Your task to perform on an android device: turn off priority inbox in the gmail app Image 0: 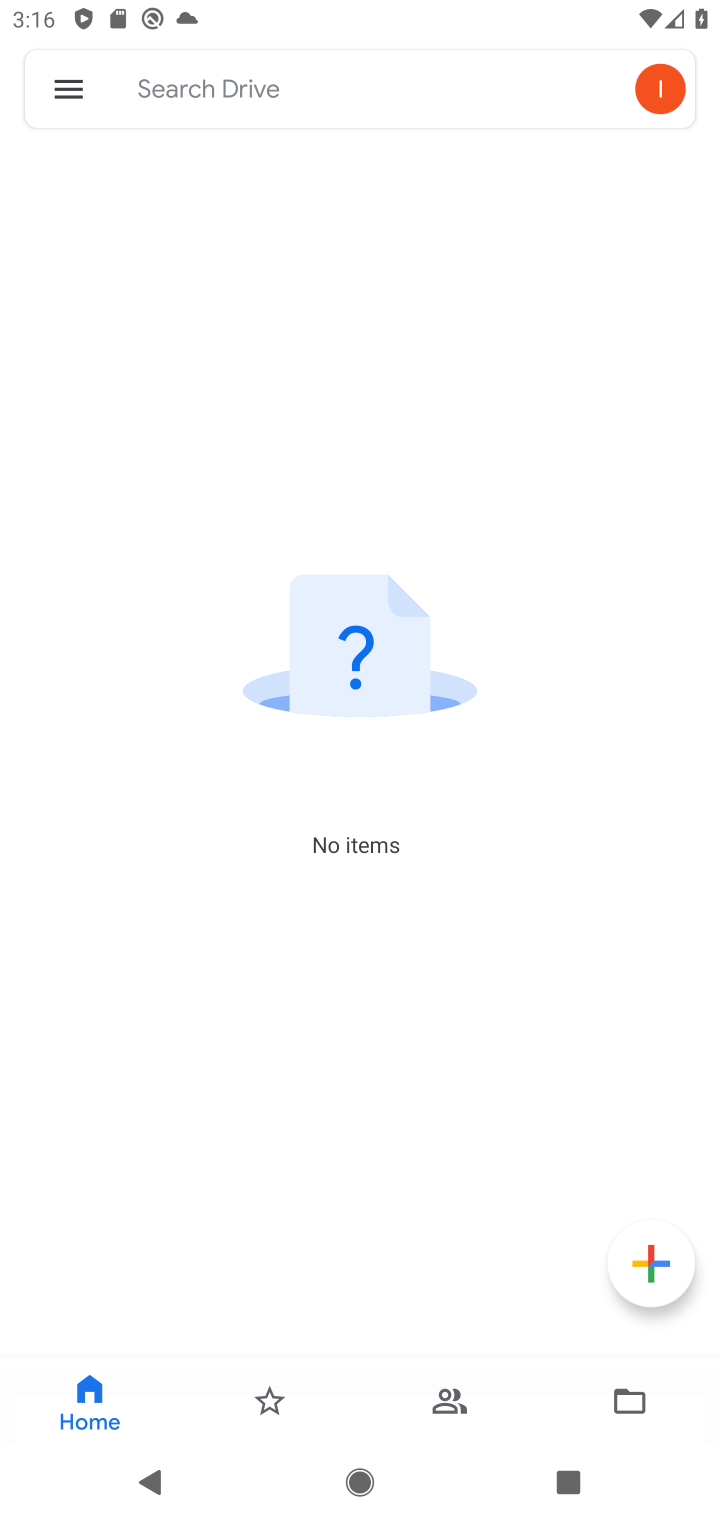
Step 0: press home button
Your task to perform on an android device: turn off priority inbox in the gmail app Image 1: 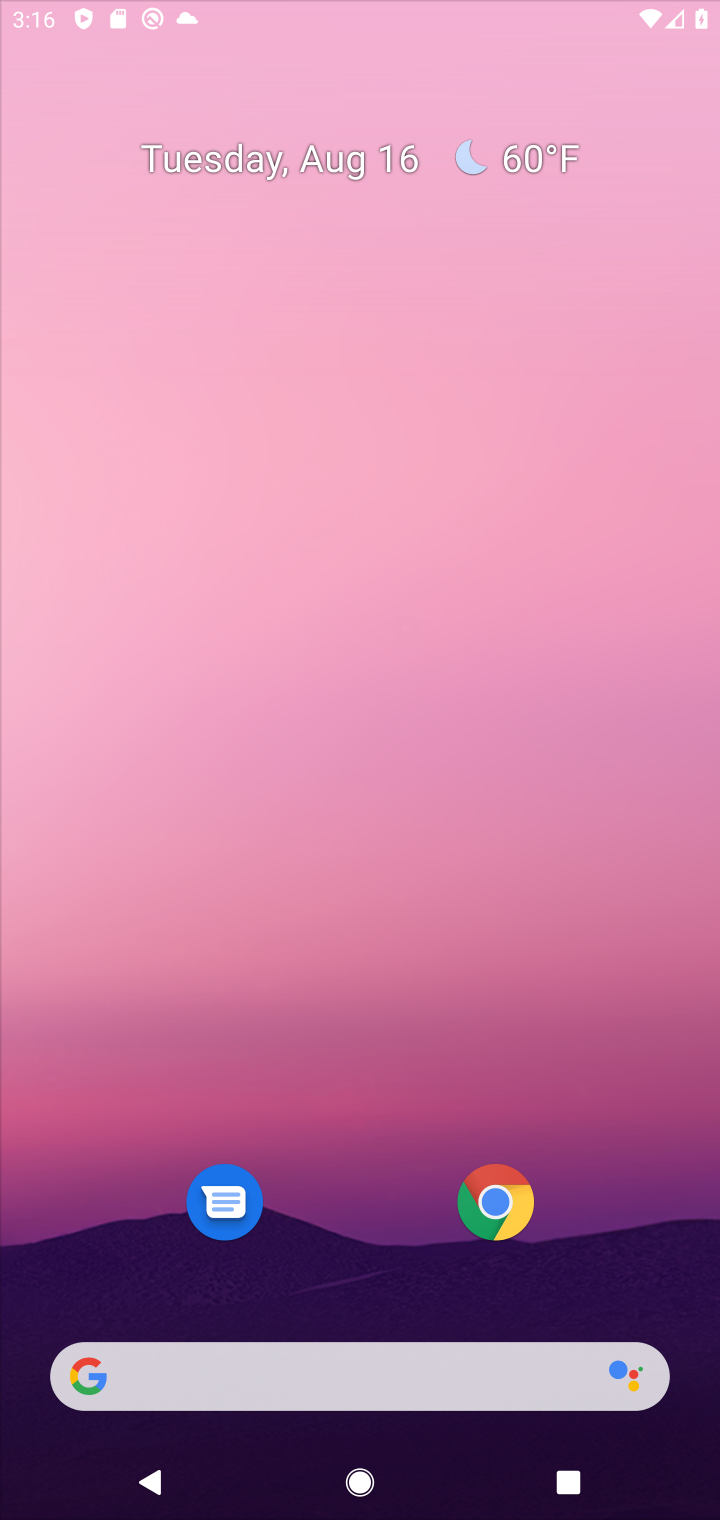
Step 1: drag from (398, 940) to (455, 278)
Your task to perform on an android device: turn off priority inbox in the gmail app Image 2: 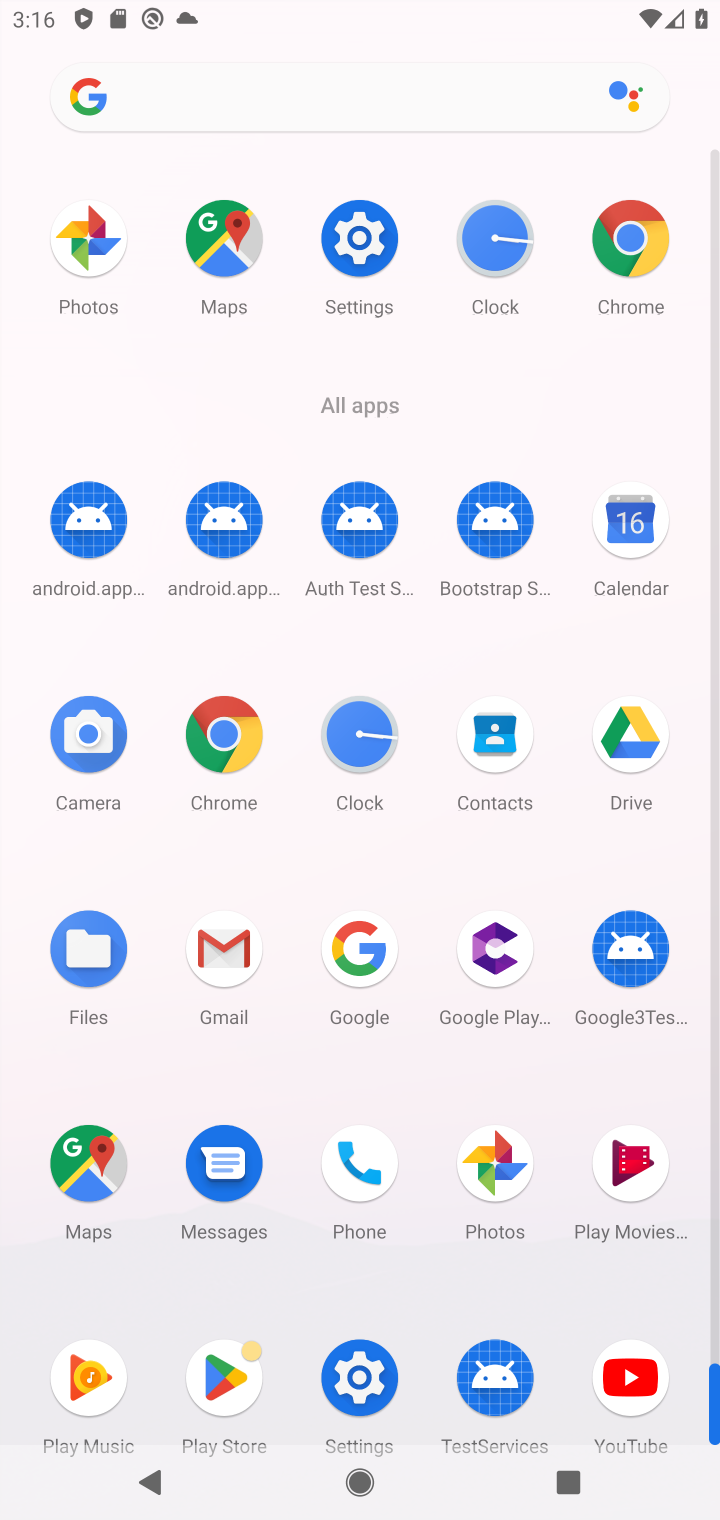
Step 2: click (250, 975)
Your task to perform on an android device: turn off priority inbox in the gmail app Image 3: 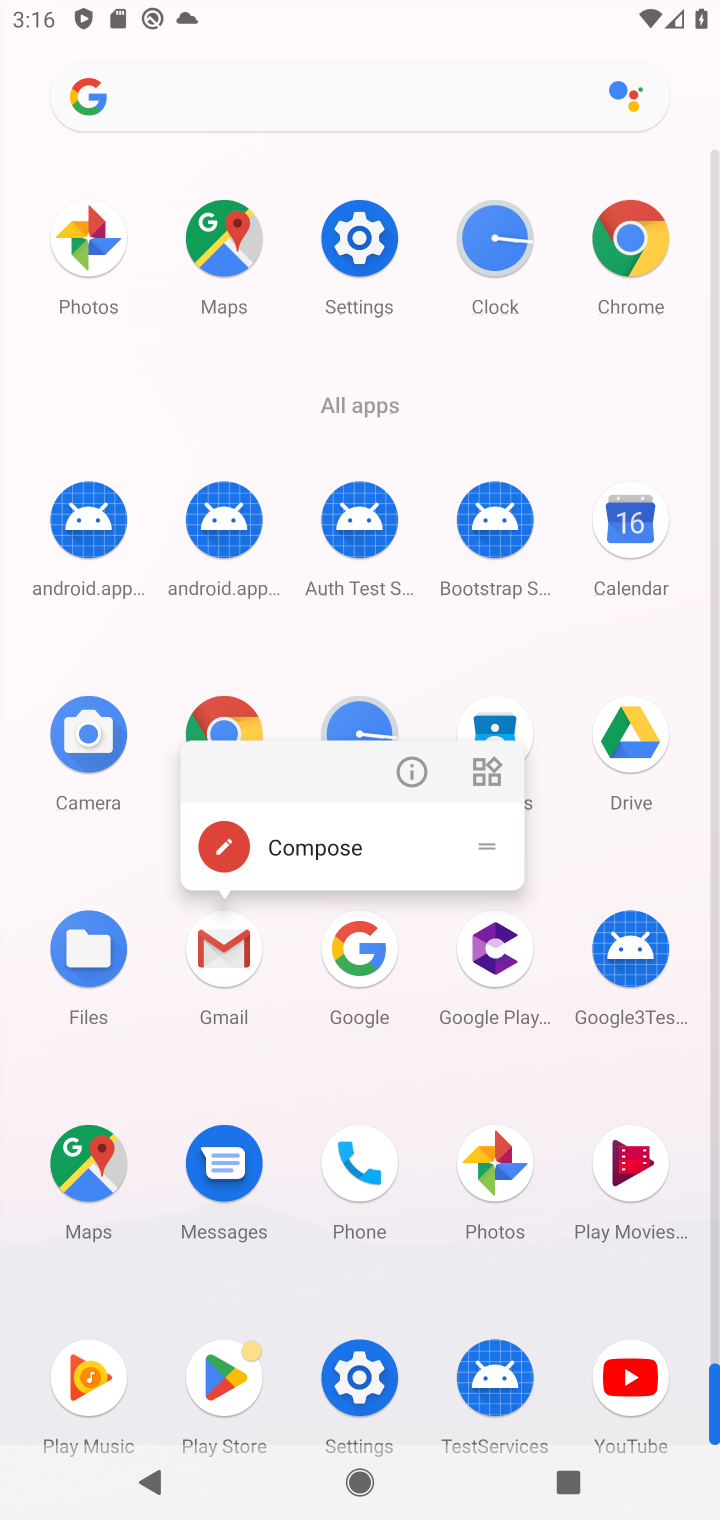
Step 3: click (225, 974)
Your task to perform on an android device: turn off priority inbox in the gmail app Image 4: 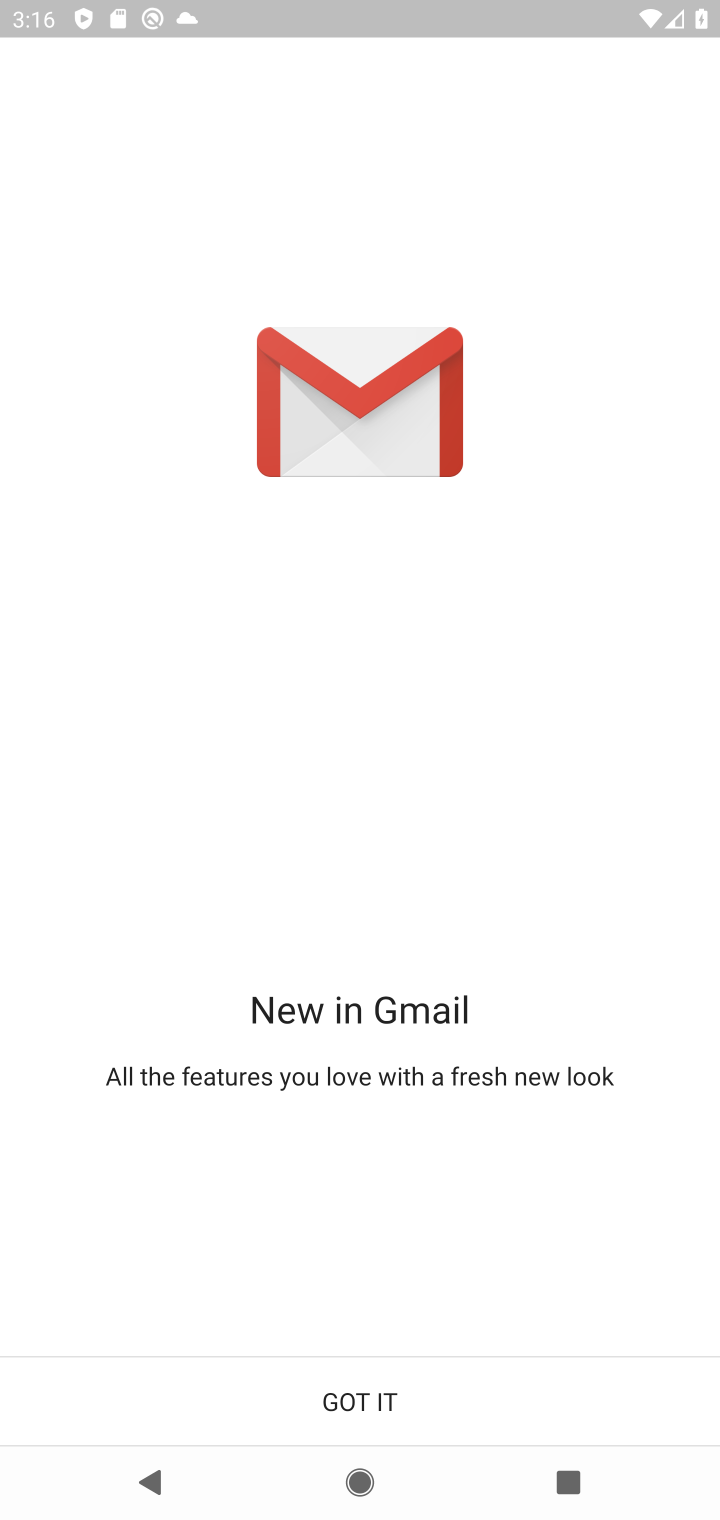
Step 4: click (395, 1389)
Your task to perform on an android device: turn off priority inbox in the gmail app Image 5: 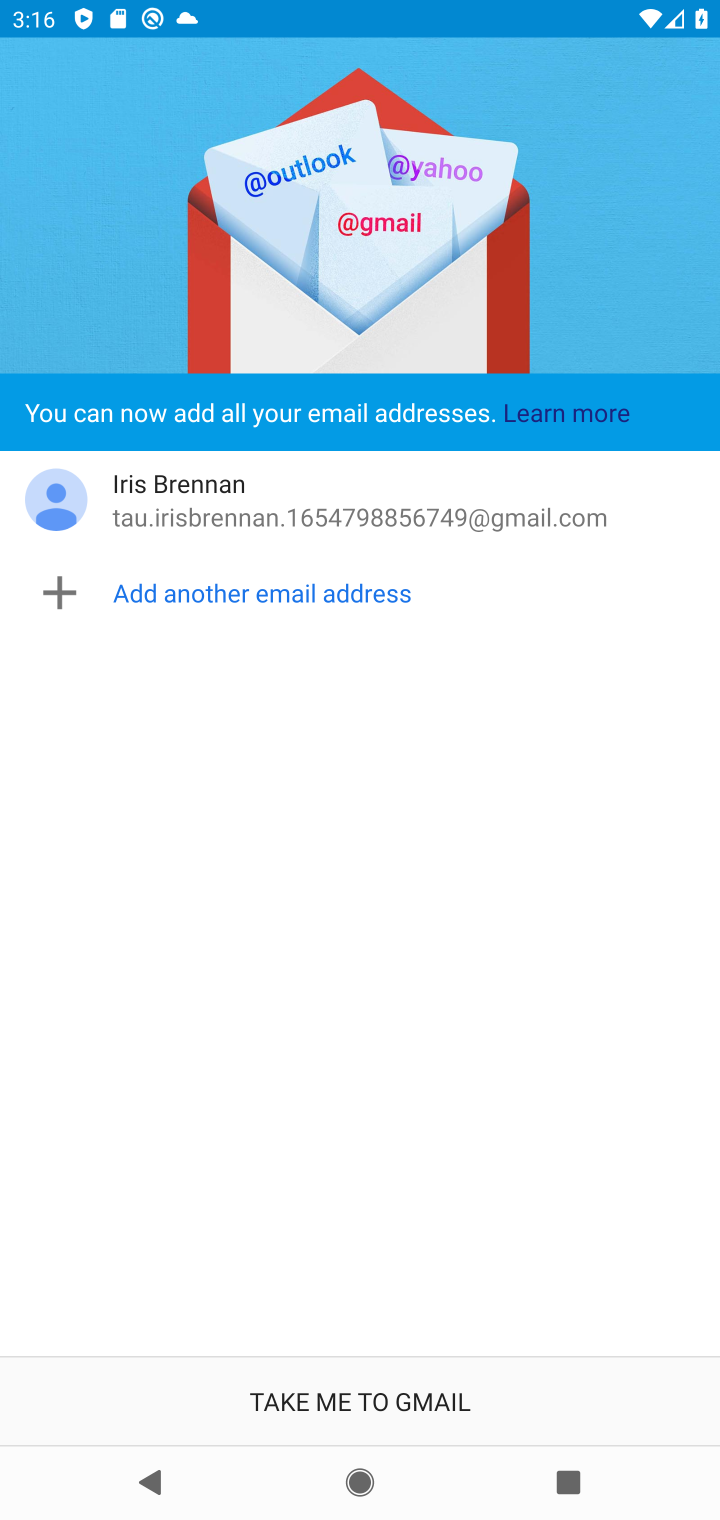
Step 5: click (404, 1382)
Your task to perform on an android device: turn off priority inbox in the gmail app Image 6: 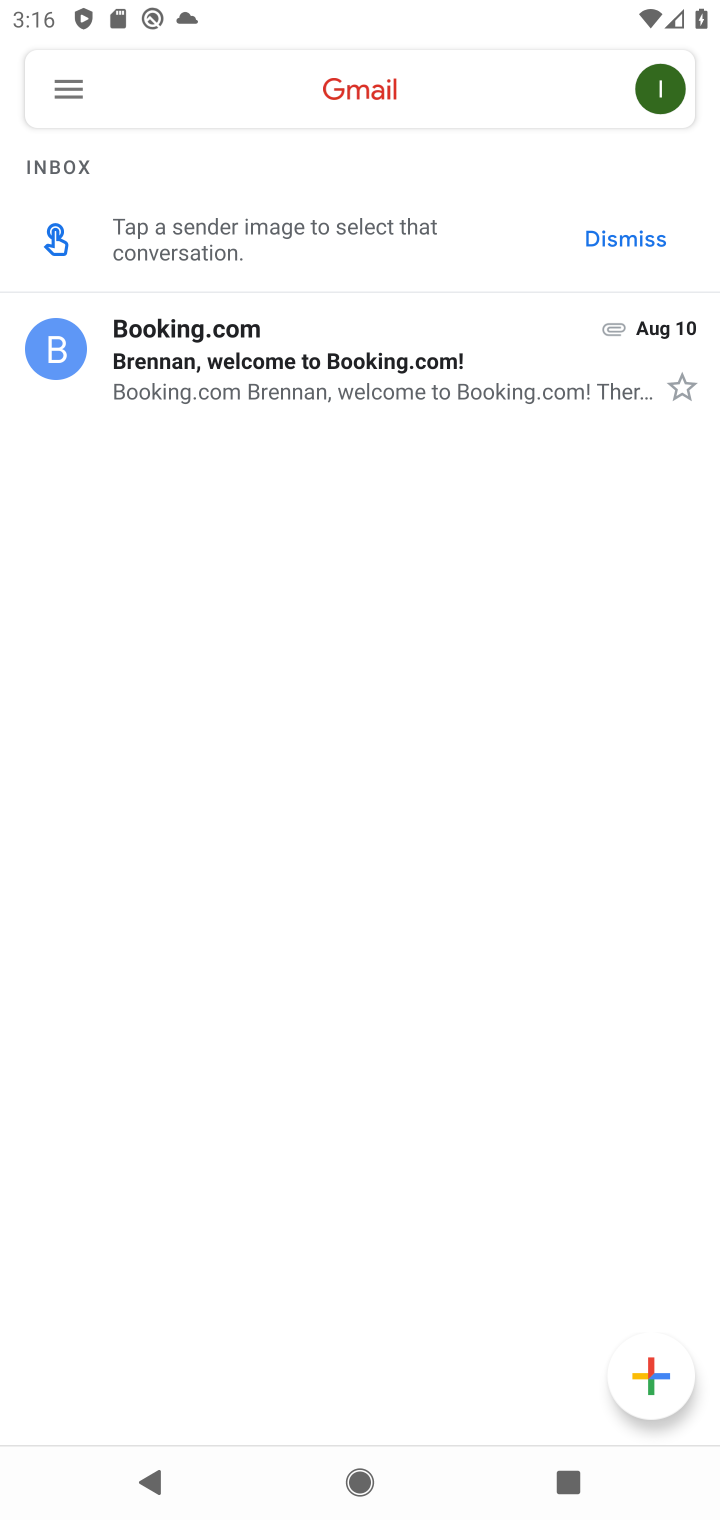
Step 6: click (65, 106)
Your task to perform on an android device: turn off priority inbox in the gmail app Image 7: 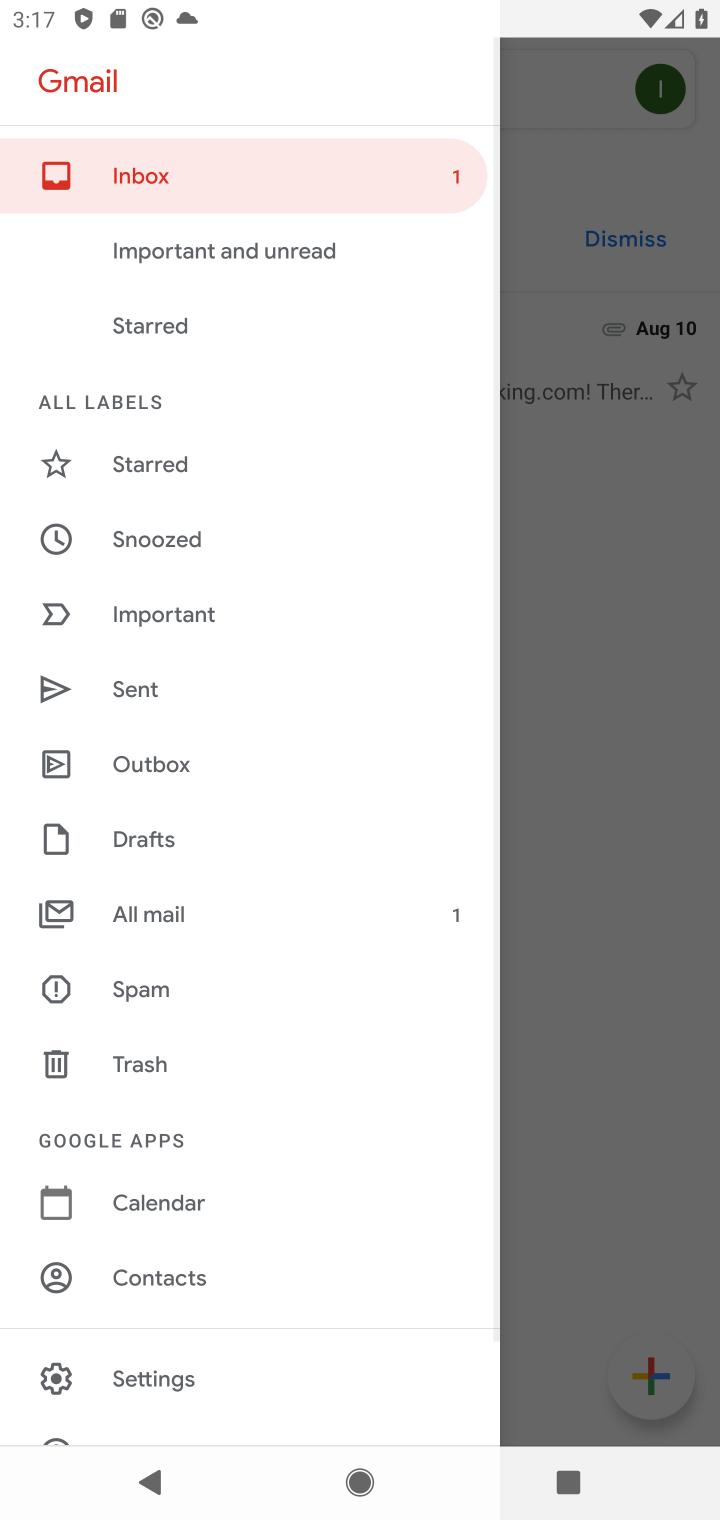
Step 7: click (190, 1371)
Your task to perform on an android device: turn off priority inbox in the gmail app Image 8: 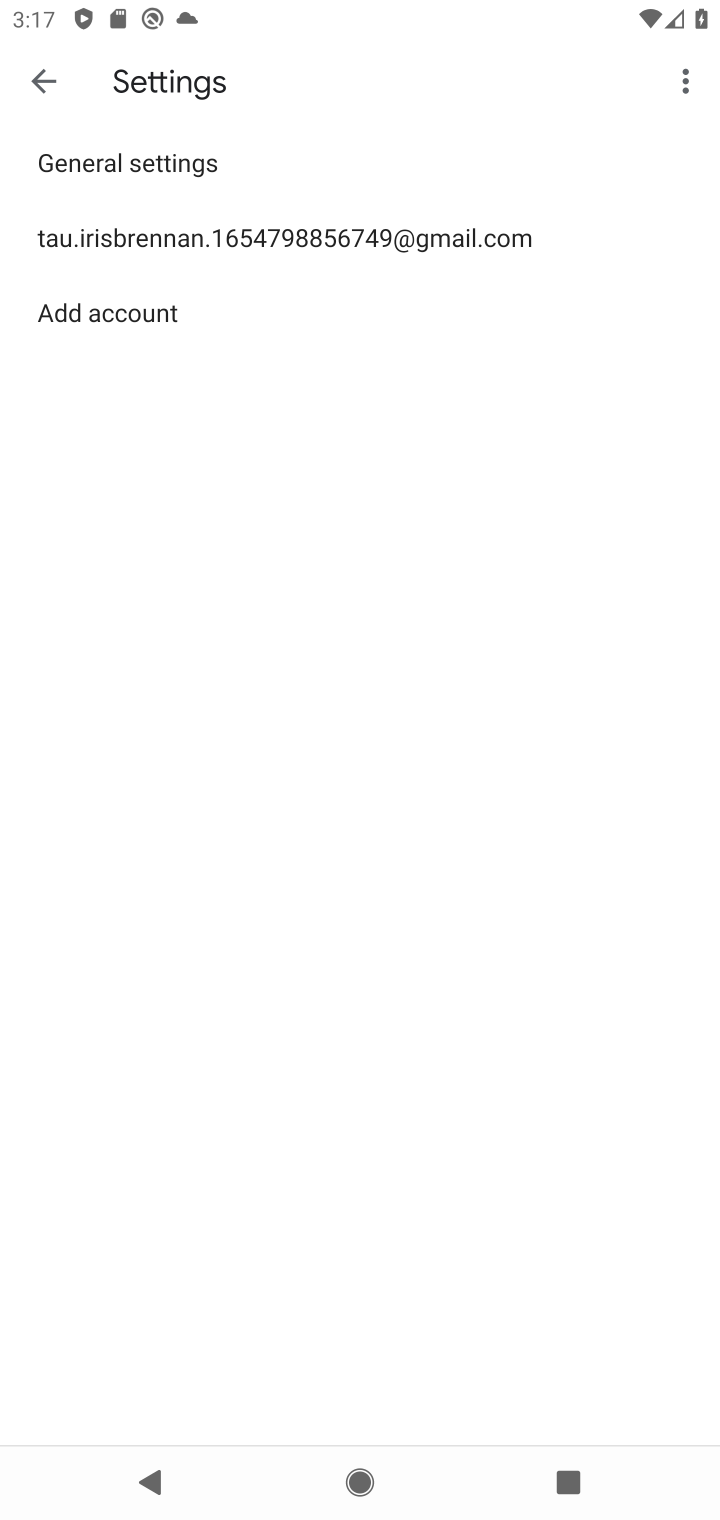
Step 8: click (385, 268)
Your task to perform on an android device: turn off priority inbox in the gmail app Image 9: 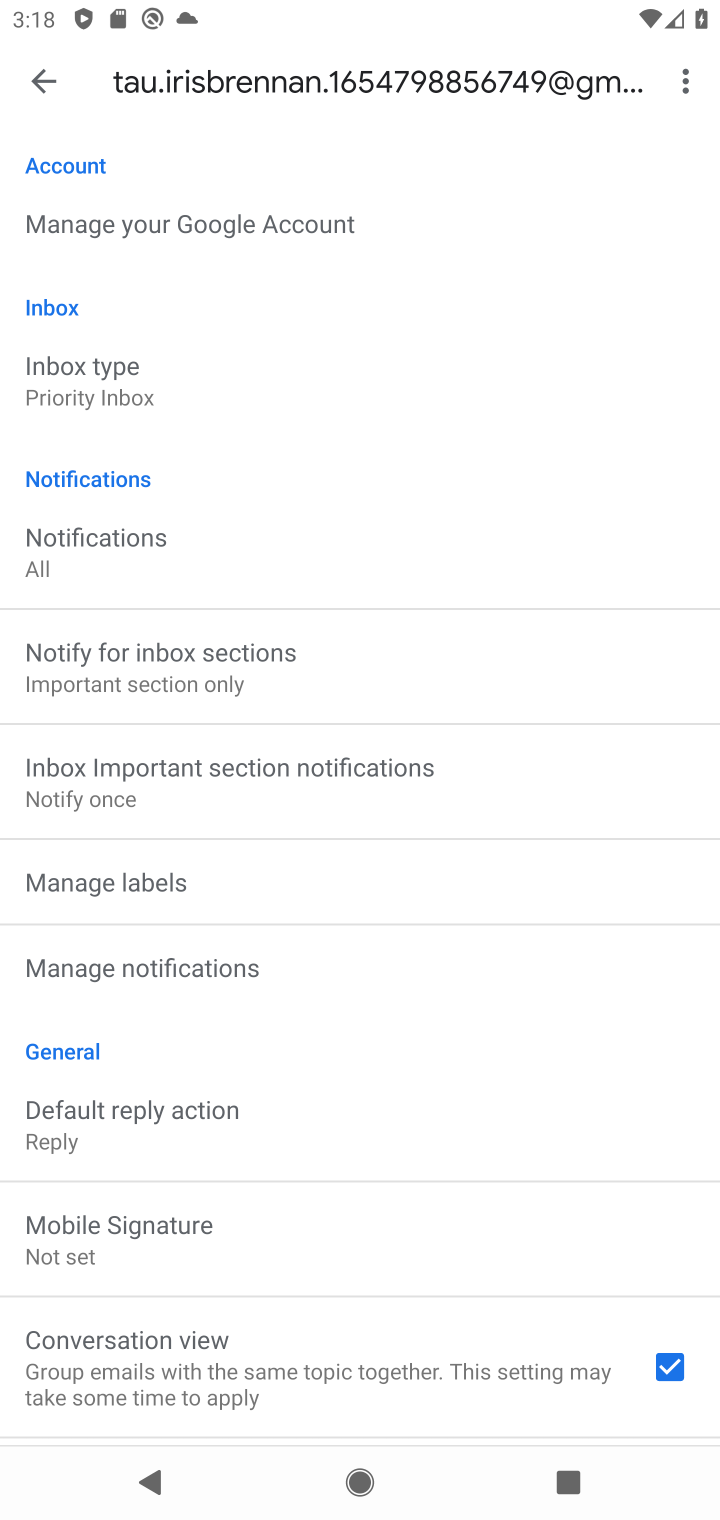
Step 9: click (276, 409)
Your task to perform on an android device: turn off priority inbox in the gmail app Image 10: 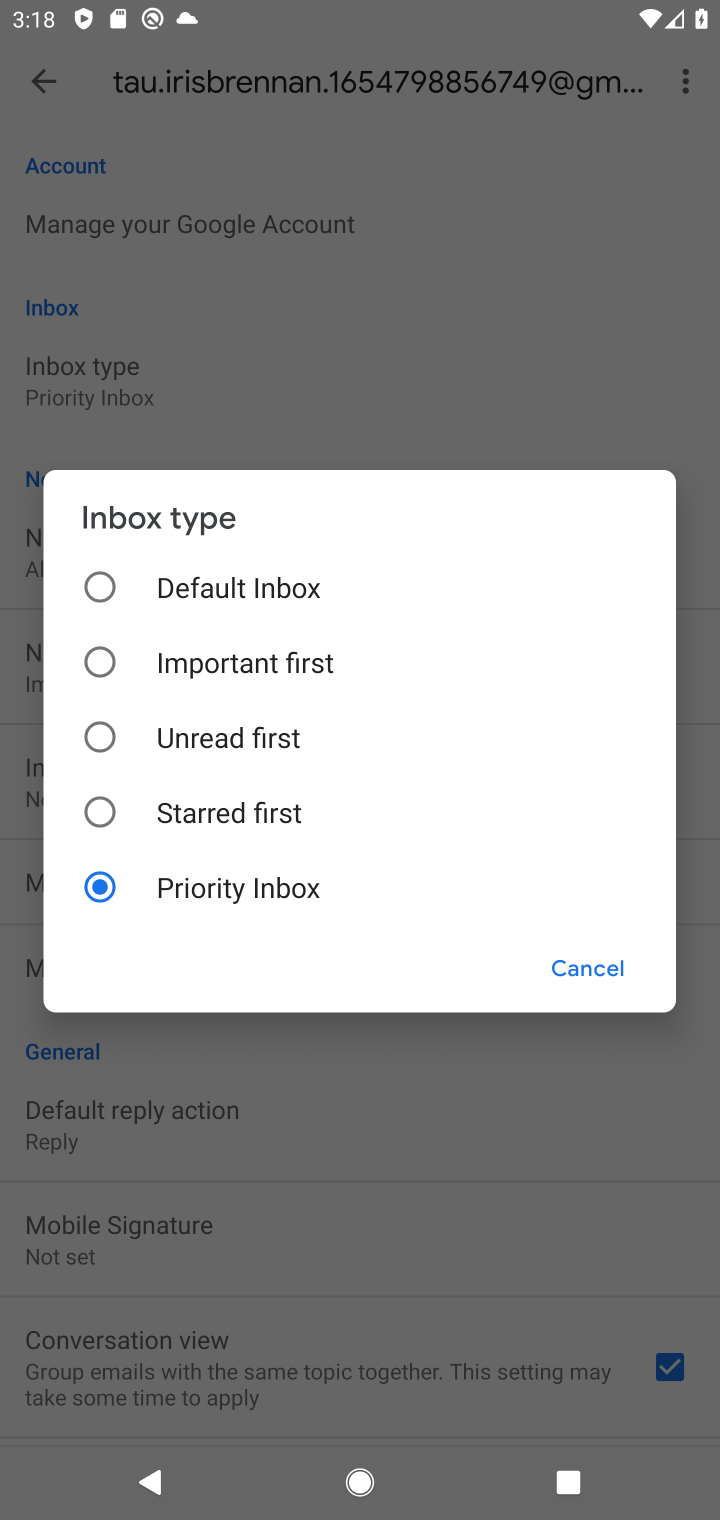
Step 10: click (279, 613)
Your task to perform on an android device: turn off priority inbox in the gmail app Image 11: 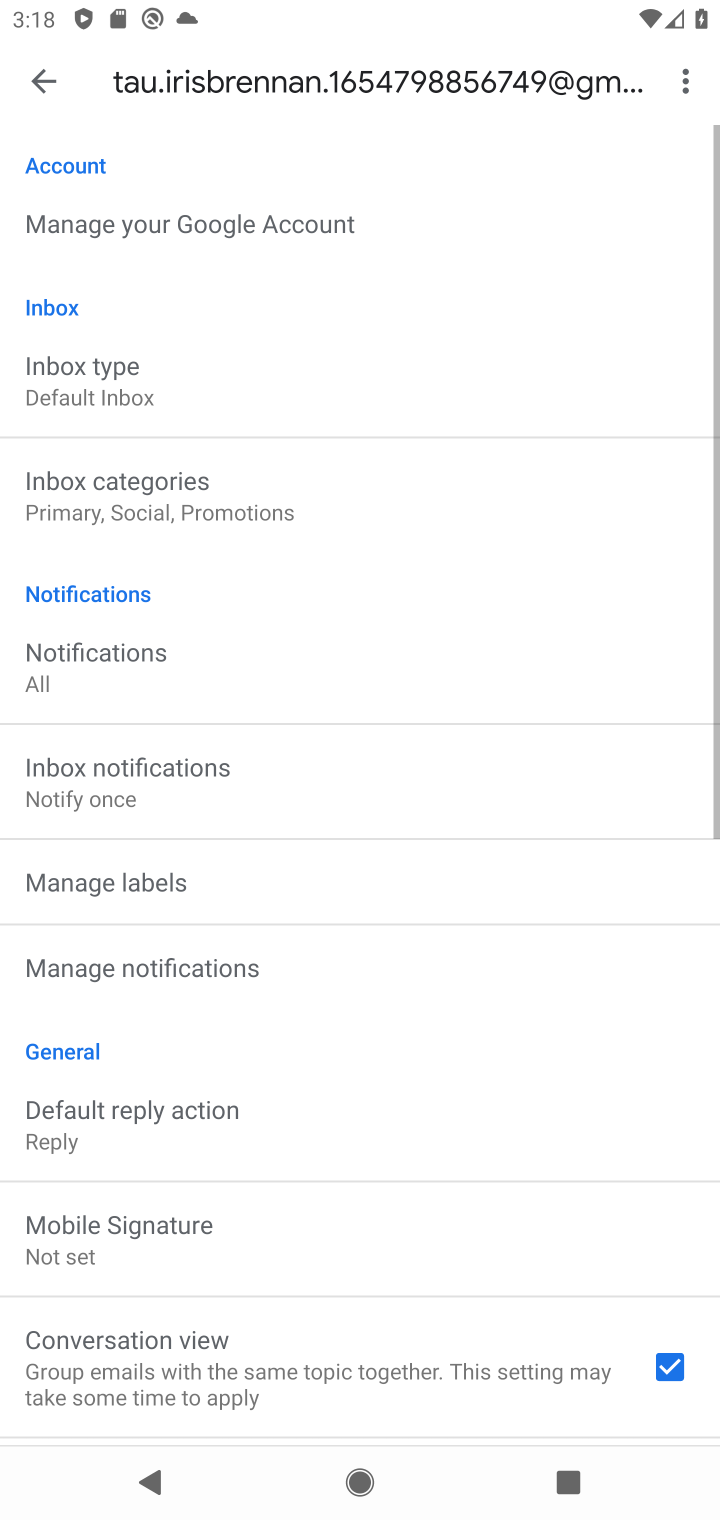
Step 11: task complete